Your task to perform on an android device: add a contact in the contacts app Image 0: 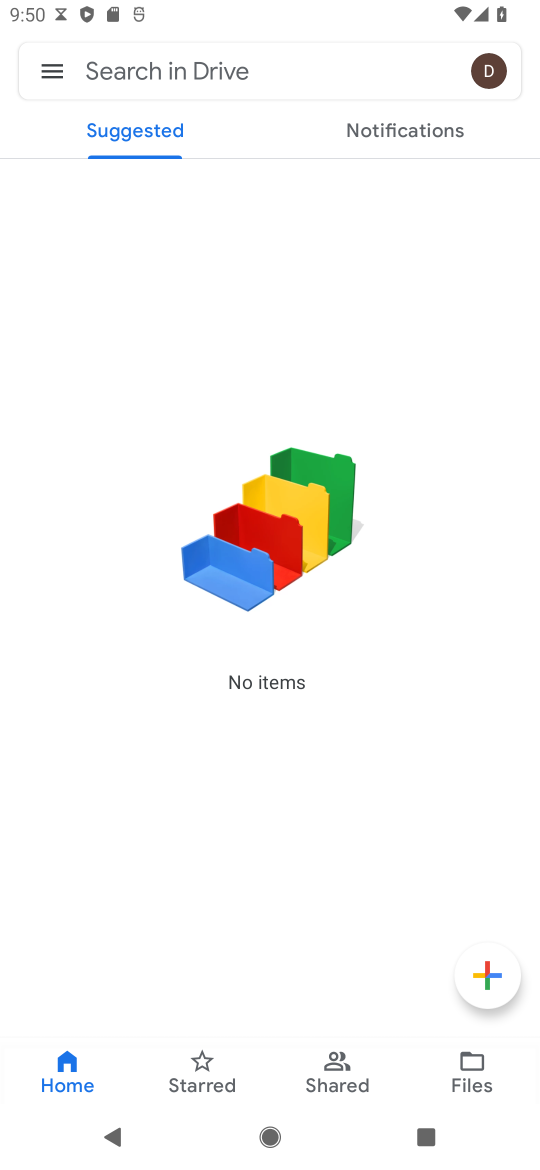
Step 0: press home button
Your task to perform on an android device: add a contact in the contacts app Image 1: 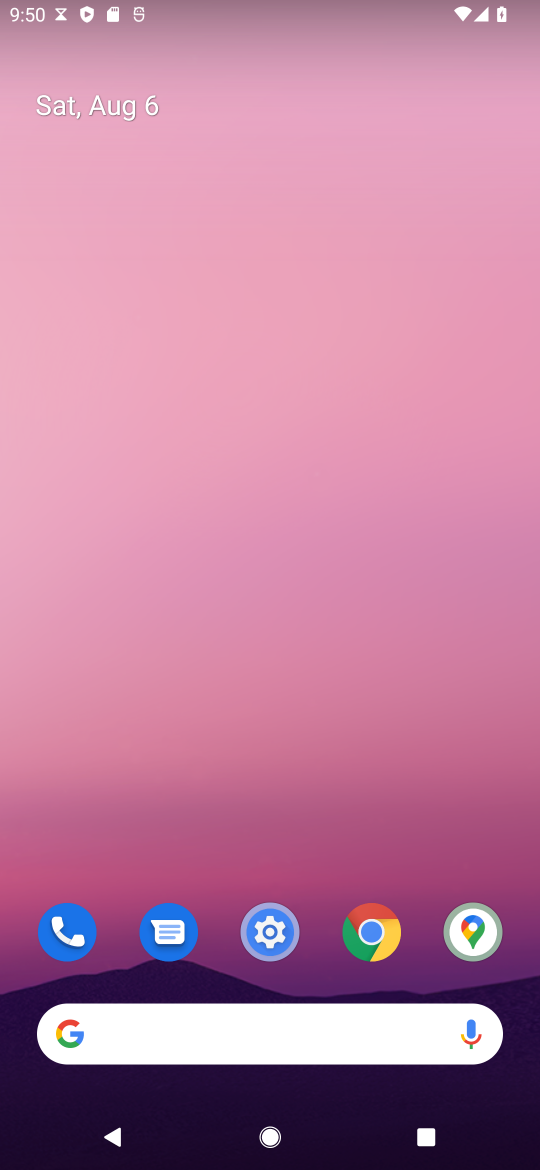
Step 1: drag from (267, 1042) to (251, 263)
Your task to perform on an android device: add a contact in the contacts app Image 2: 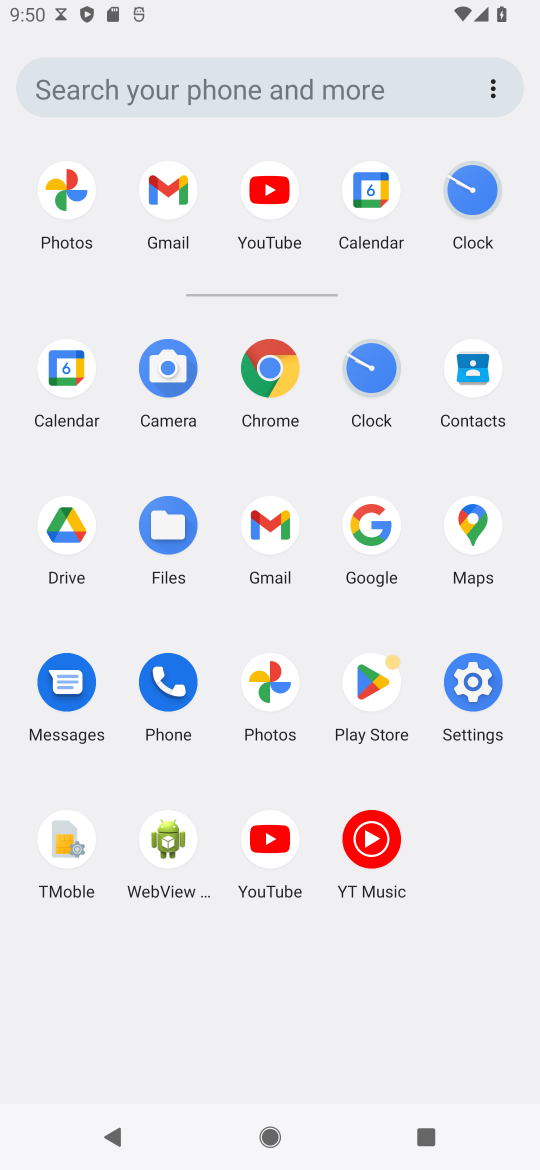
Step 2: click (475, 371)
Your task to perform on an android device: add a contact in the contacts app Image 3: 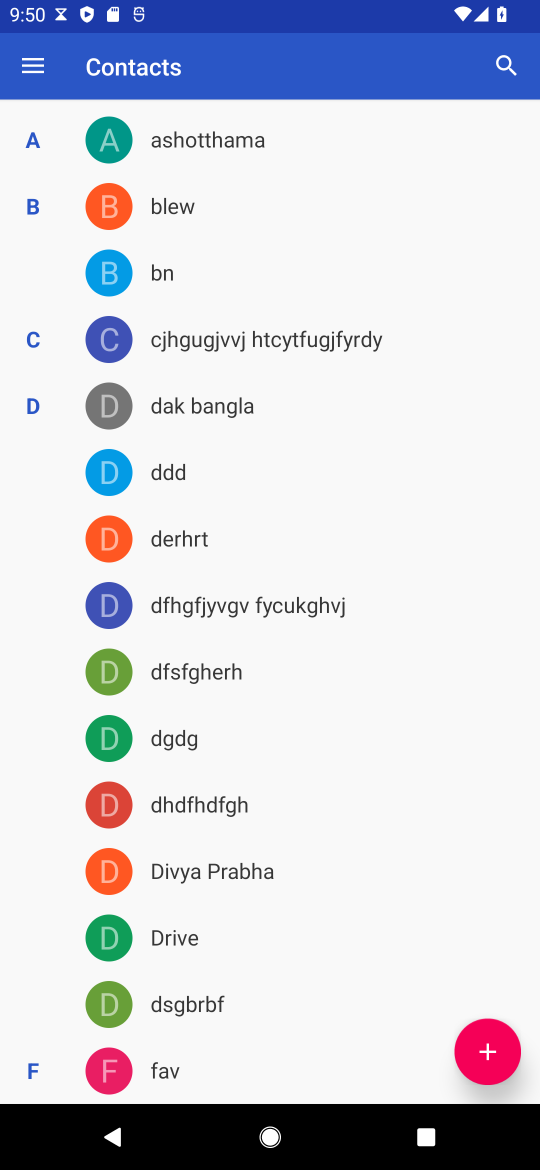
Step 3: click (487, 1054)
Your task to perform on an android device: add a contact in the contacts app Image 4: 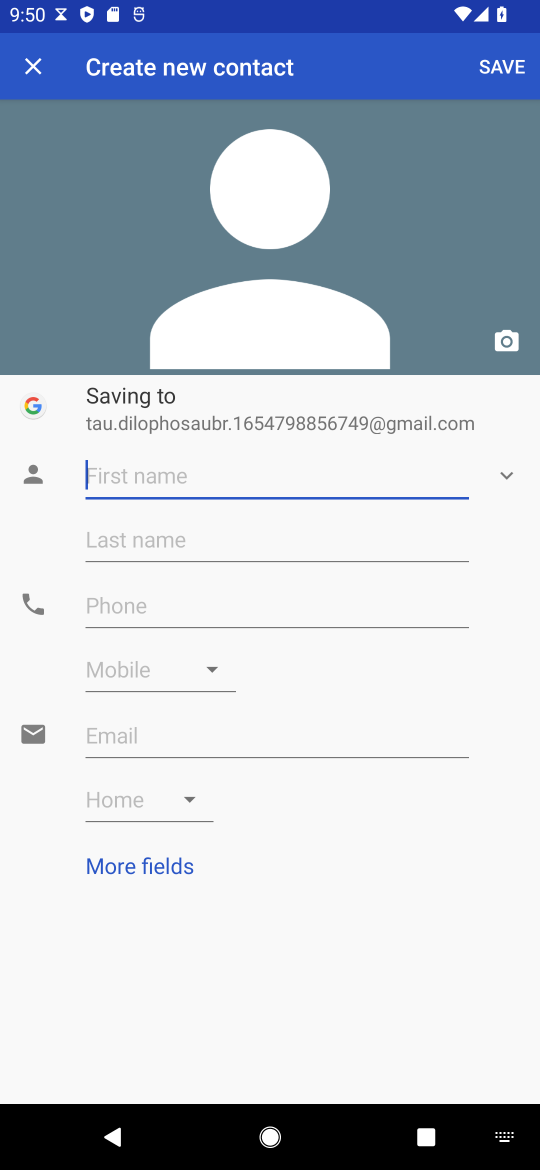
Step 4: type "Alia"
Your task to perform on an android device: add a contact in the contacts app Image 5: 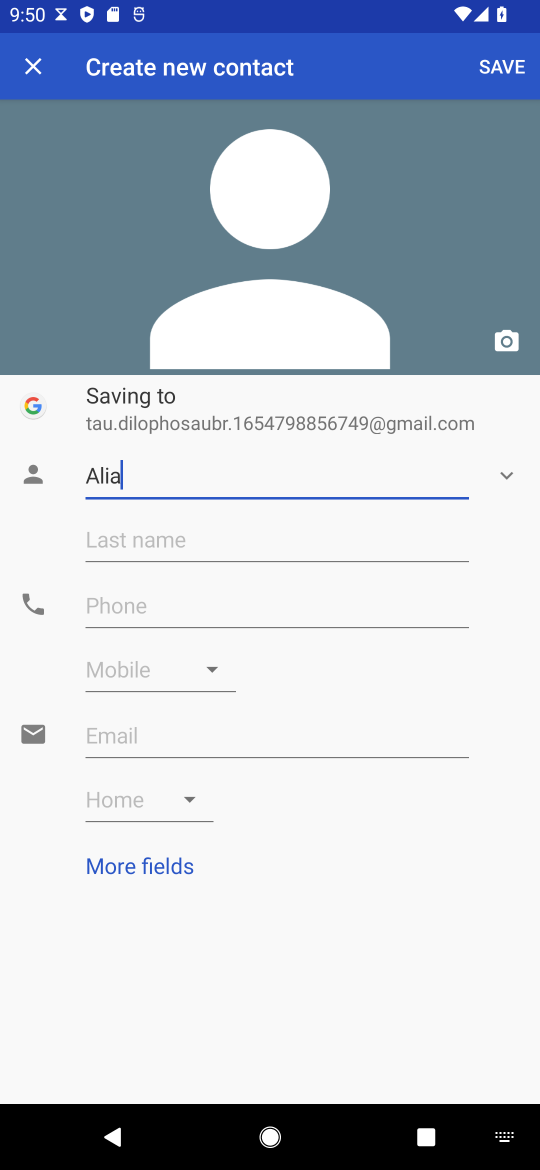
Step 5: click (355, 531)
Your task to perform on an android device: add a contact in the contacts app Image 6: 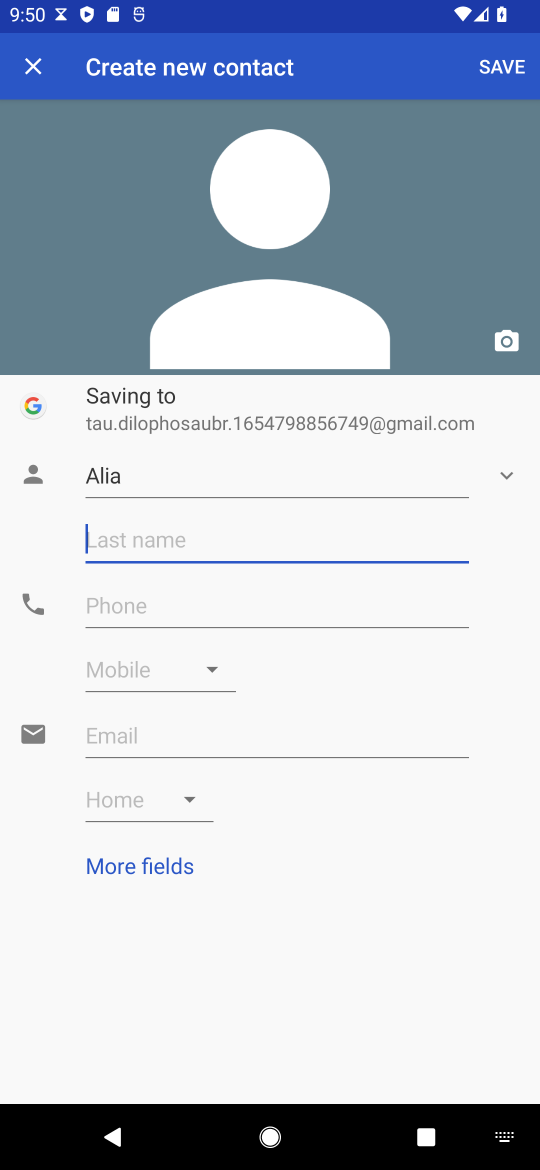
Step 6: type "Bhatt"
Your task to perform on an android device: add a contact in the contacts app Image 7: 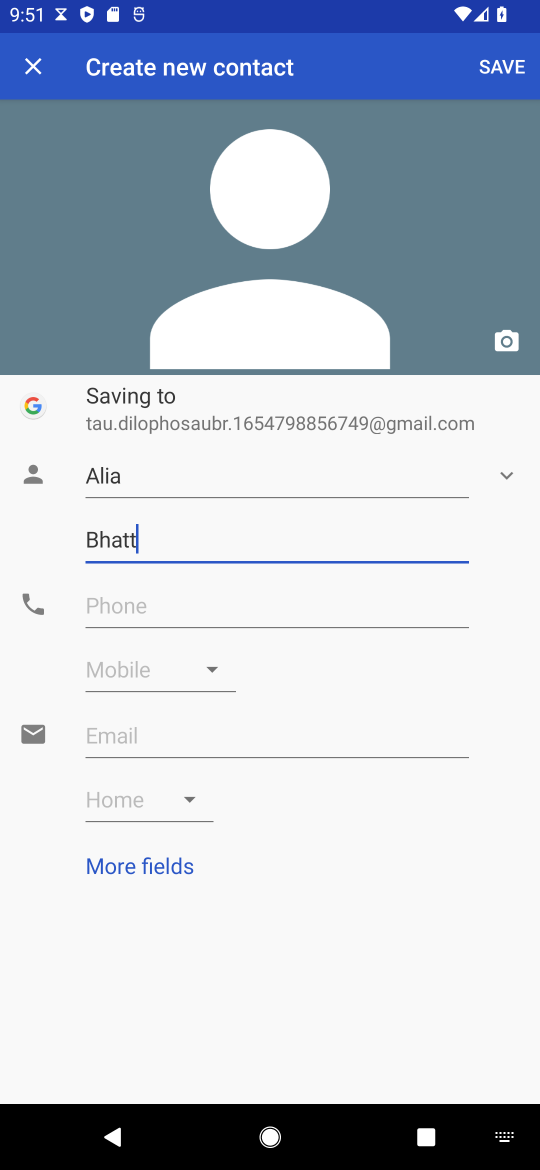
Step 7: click (219, 613)
Your task to perform on an android device: add a contact in the contacts app Image 8: 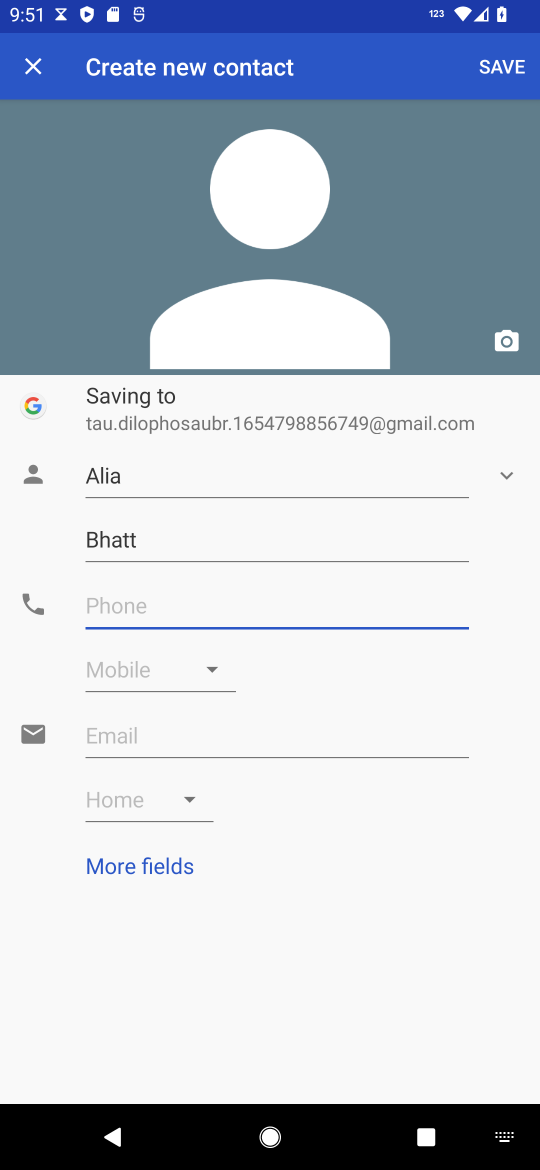
Step 8: type "0987654321"
Your task to perform on an android device: add a contact in the contacts app Image 9: 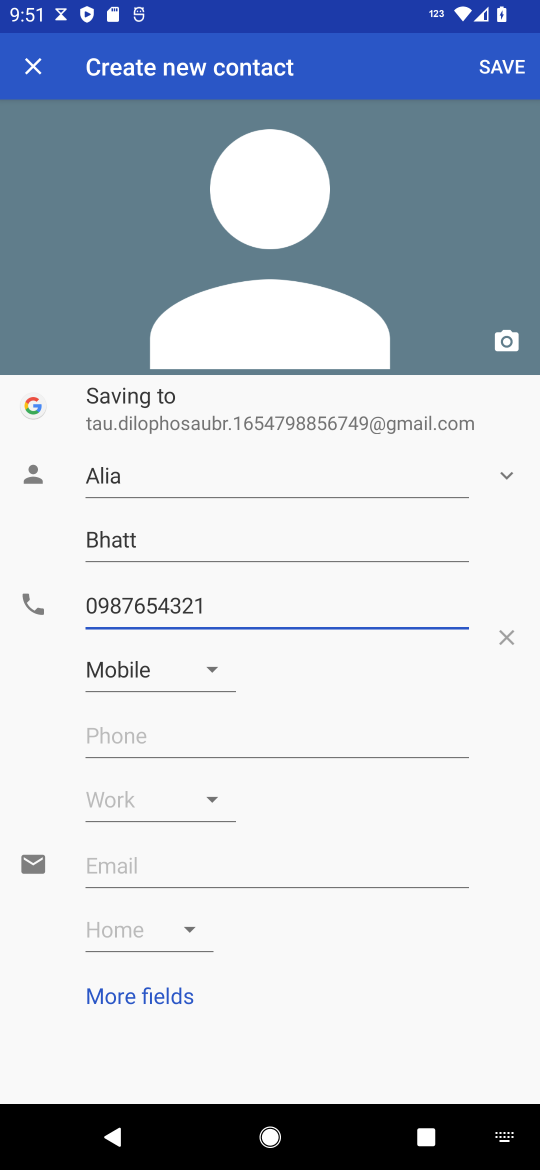
Step 9: click (489, 61)
Your task to perform on an android device: add a contact in the contacts app Image 10: 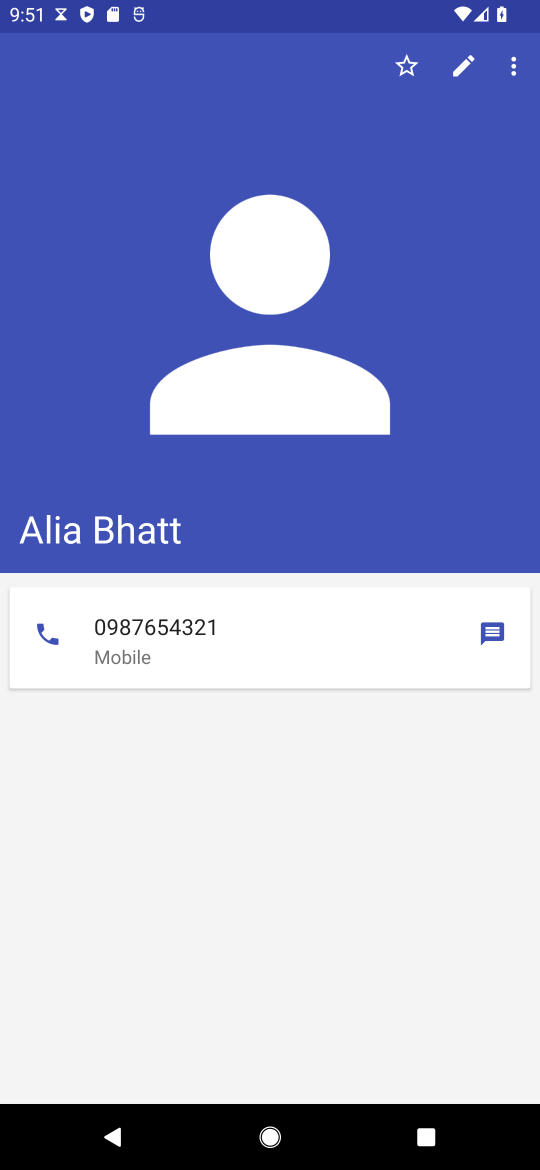
Step 10: task complete